Your task to perform on an android device: Go to ESPN.com Image 0: 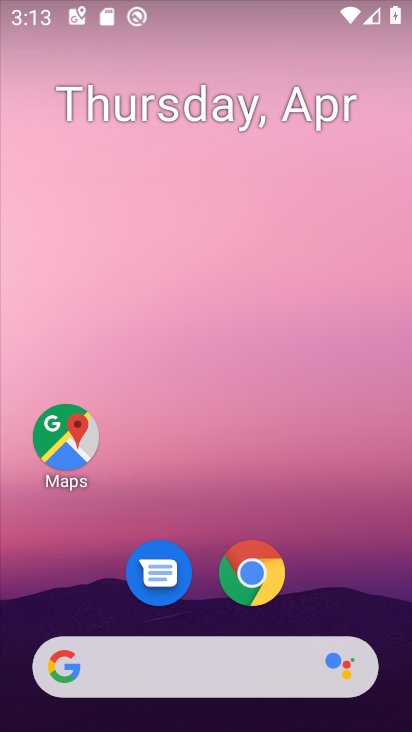
Step 0: click (255, 573)
Your task to perform on an android device: Go to ESPN.com Image 1: 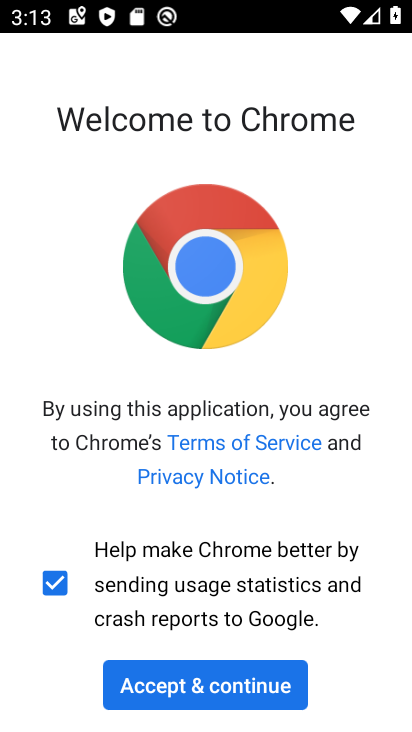
Step 1: click (196, 686)
Your task to perform on an android device: Go to ESPN.com Image 2: 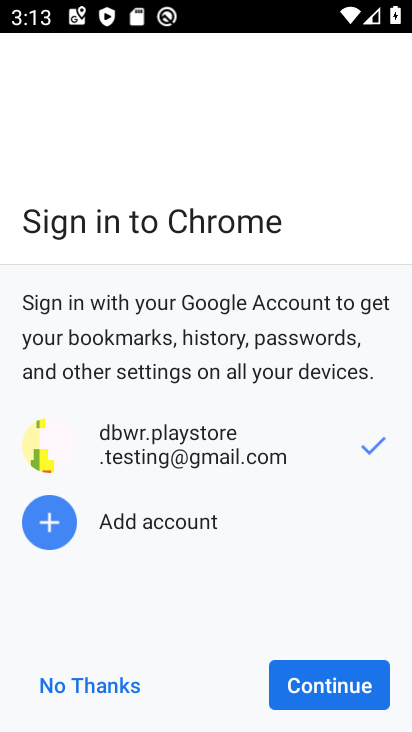
Step 2: click (329, 684)
Your task to perform on an android device: Go to ESPN.com Image 3: 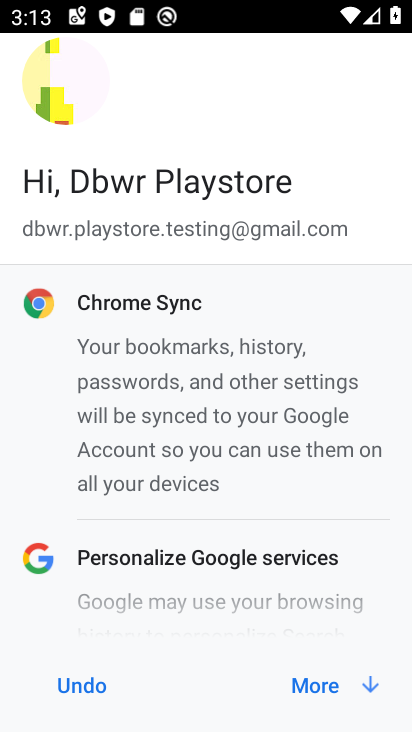
Step 3: click (337, 687)
Your task to perform on an android device: Go to ESPN.com Image 4: 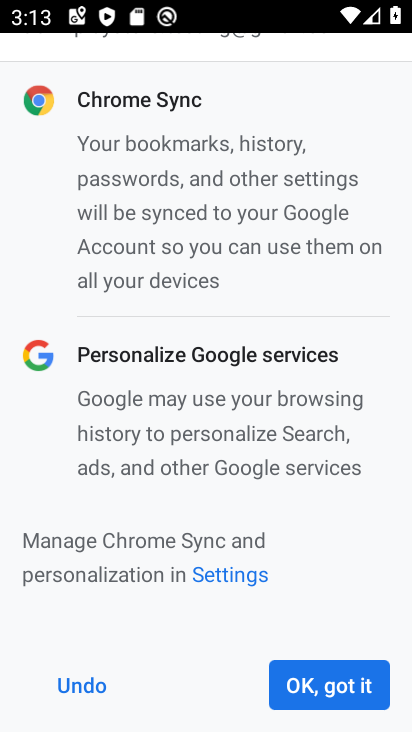
Step 4: click (337, 687)
Your task to perform on an android device: Go to ESPN.com Image 5: 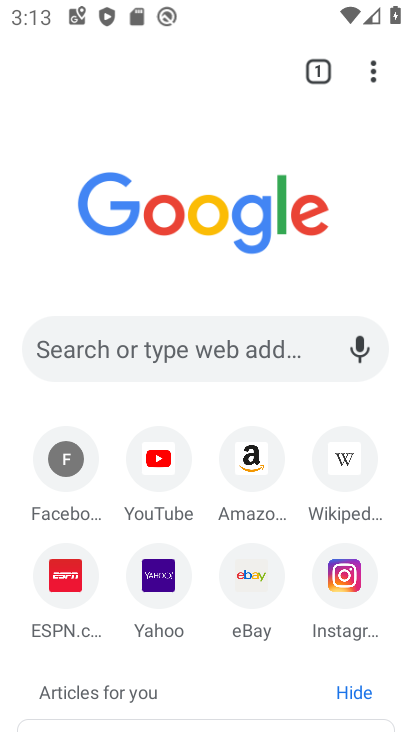
Step 5: click (174, 359)
Your task to perform on an android device: Go to ESPN.com Image 6: 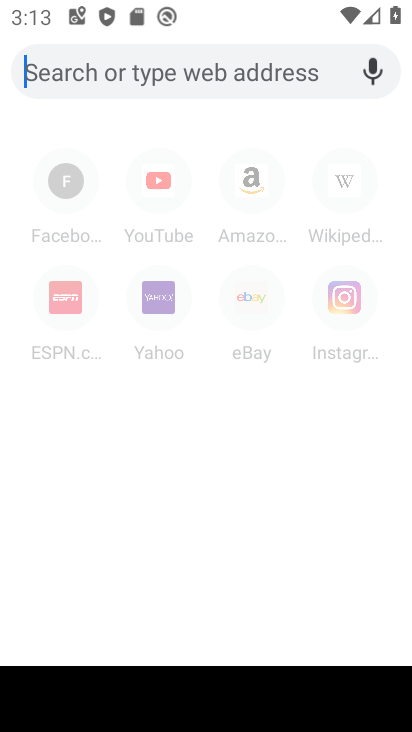
Step 6: type "espn.com"
Your task to perform on an android device: Go to ESPN.com Image 7: 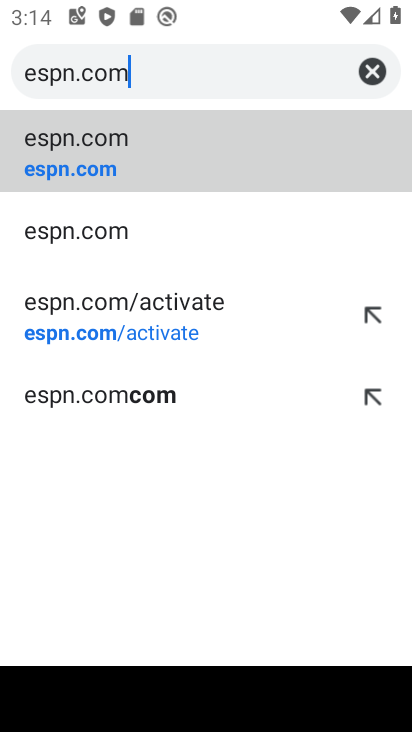
Step 7: click (78, 155)
Your task to perform on an android device: Go to ESPN.com Image 8: 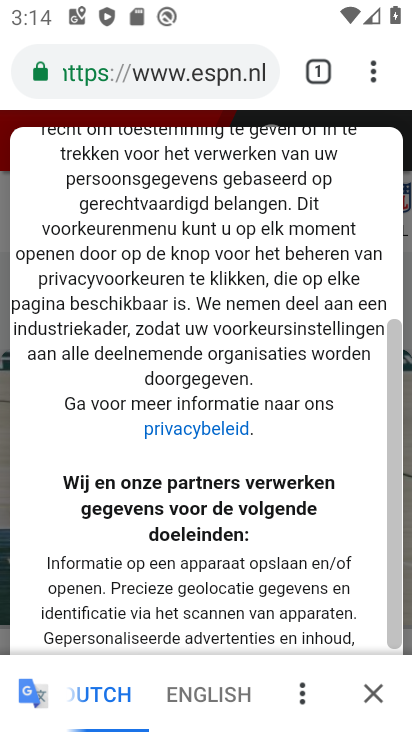
Step 8: task complete